Your task to perform on an android device: open app "Etsy: Buy & Sell Unique Items" (install if not already installed) Image 0: 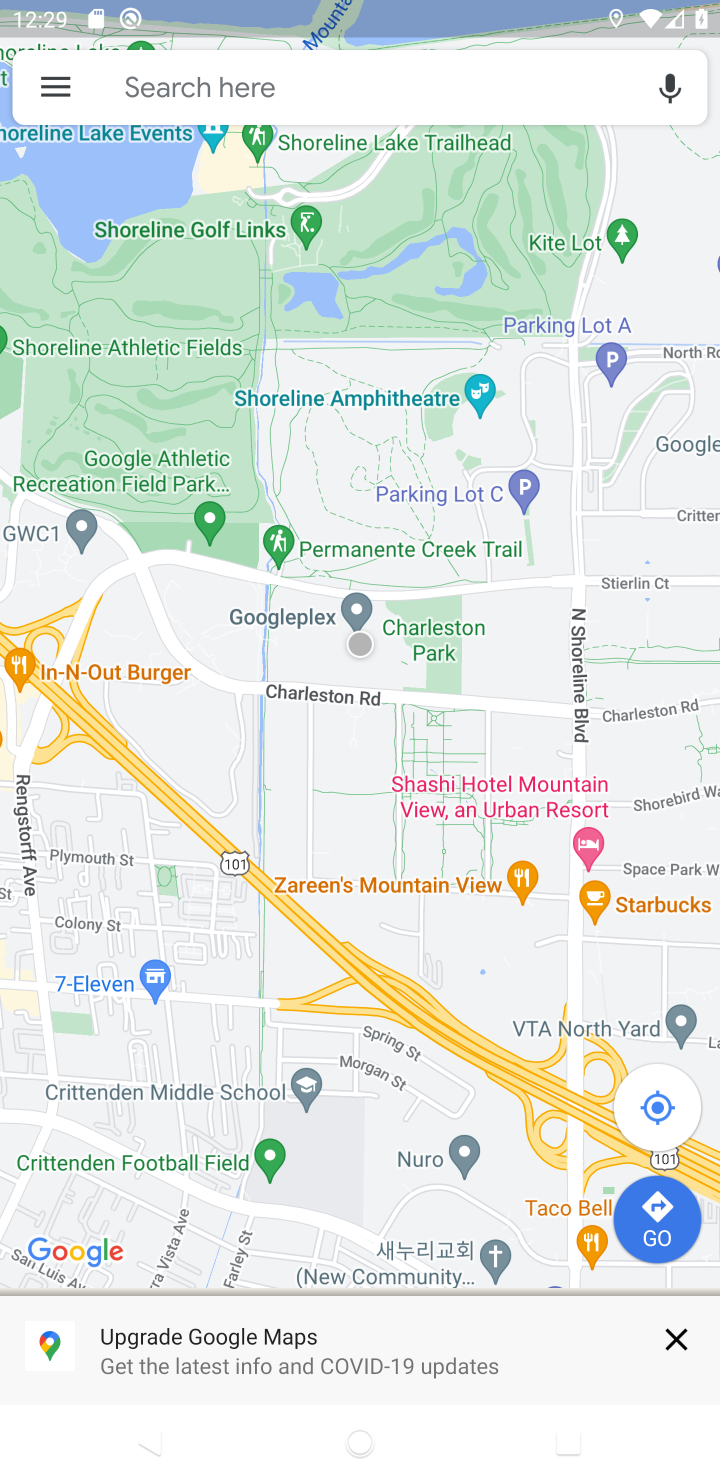
Step 0: press home button
Your task to perform on an android device: open app "Etsy: Buy & Sell Unique Items" (install if not already installed) Image 1: 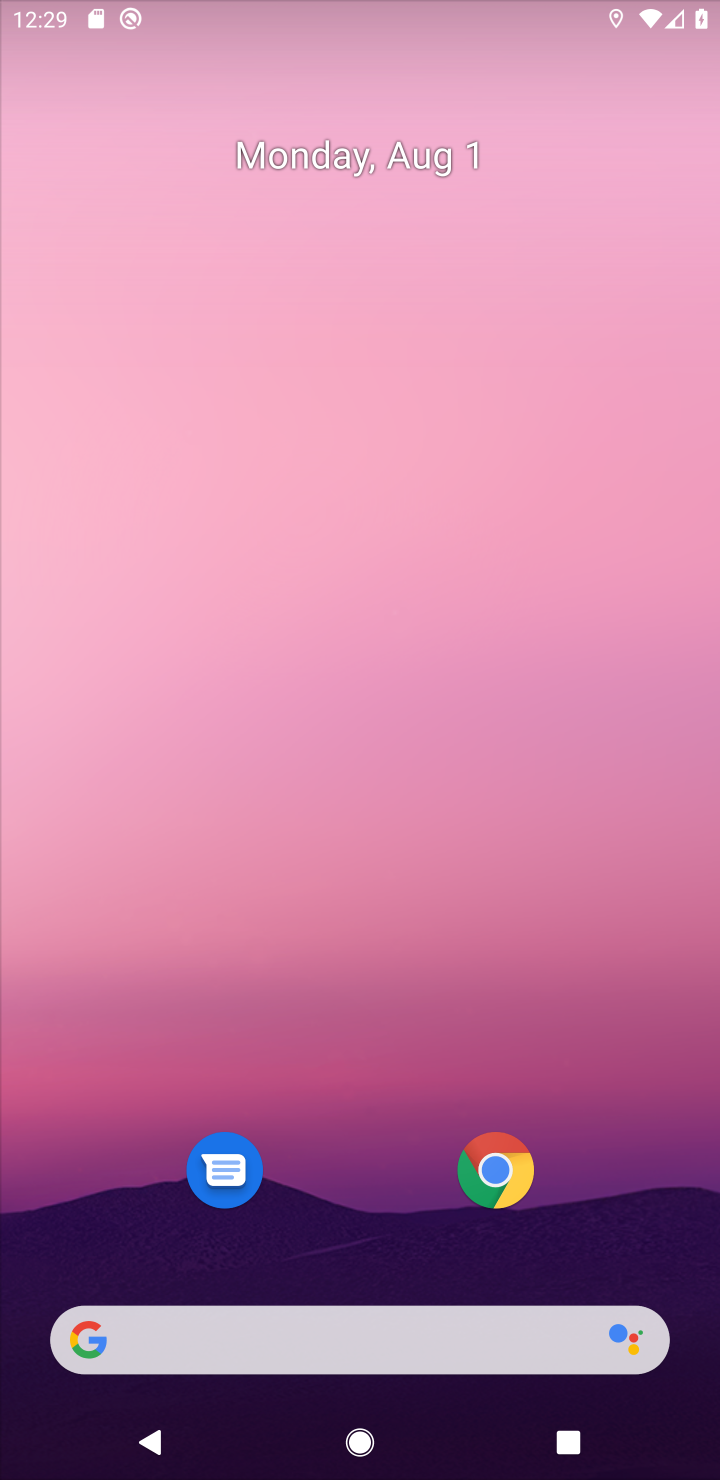
Step 1: press home button
Your task to perform on an android device: open app "Etsy: Buy & Sell Unique Items" (install if not already installed) Image 2: 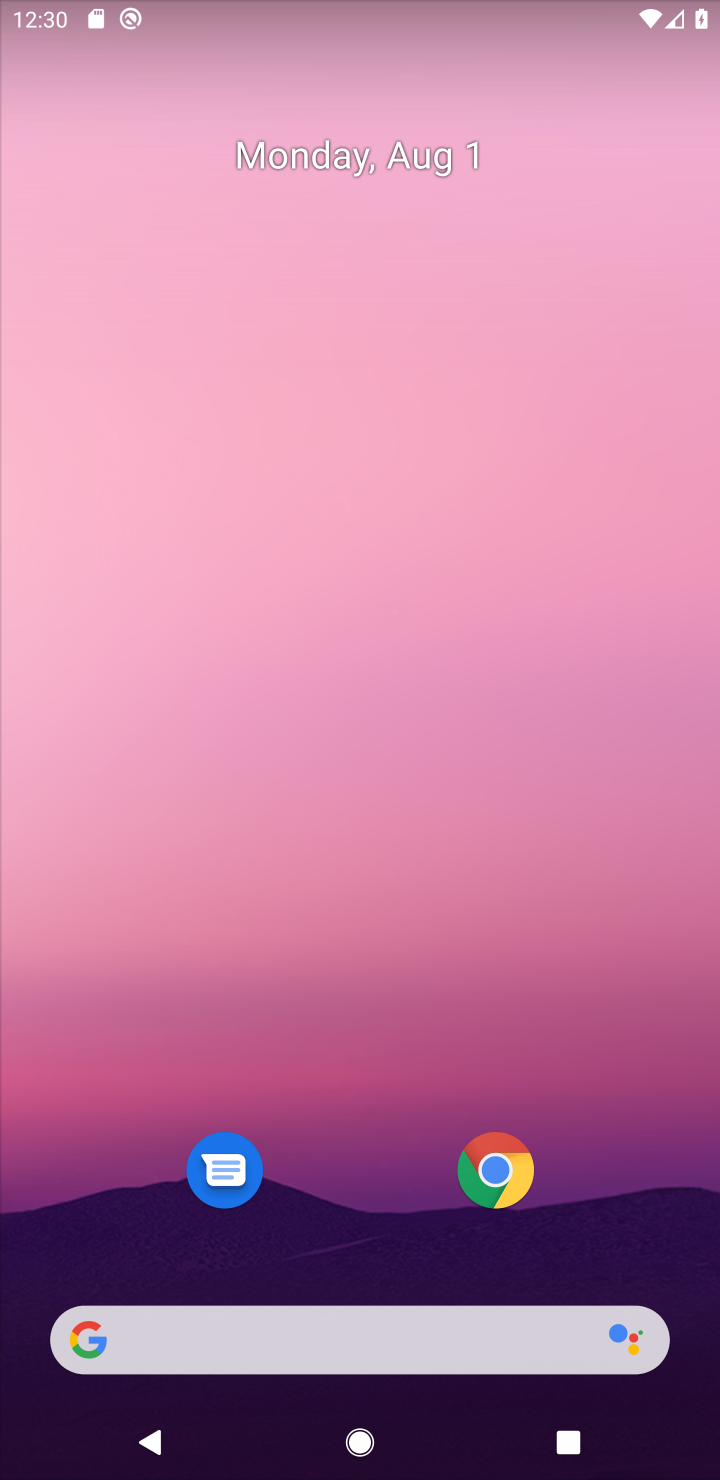
Step 2: drag from (657, 1251) to (419, 23)
Your task to perform on an android device: open app "Etsy: Buy & Sell Unique Items" (install if not already installed) Image 3: 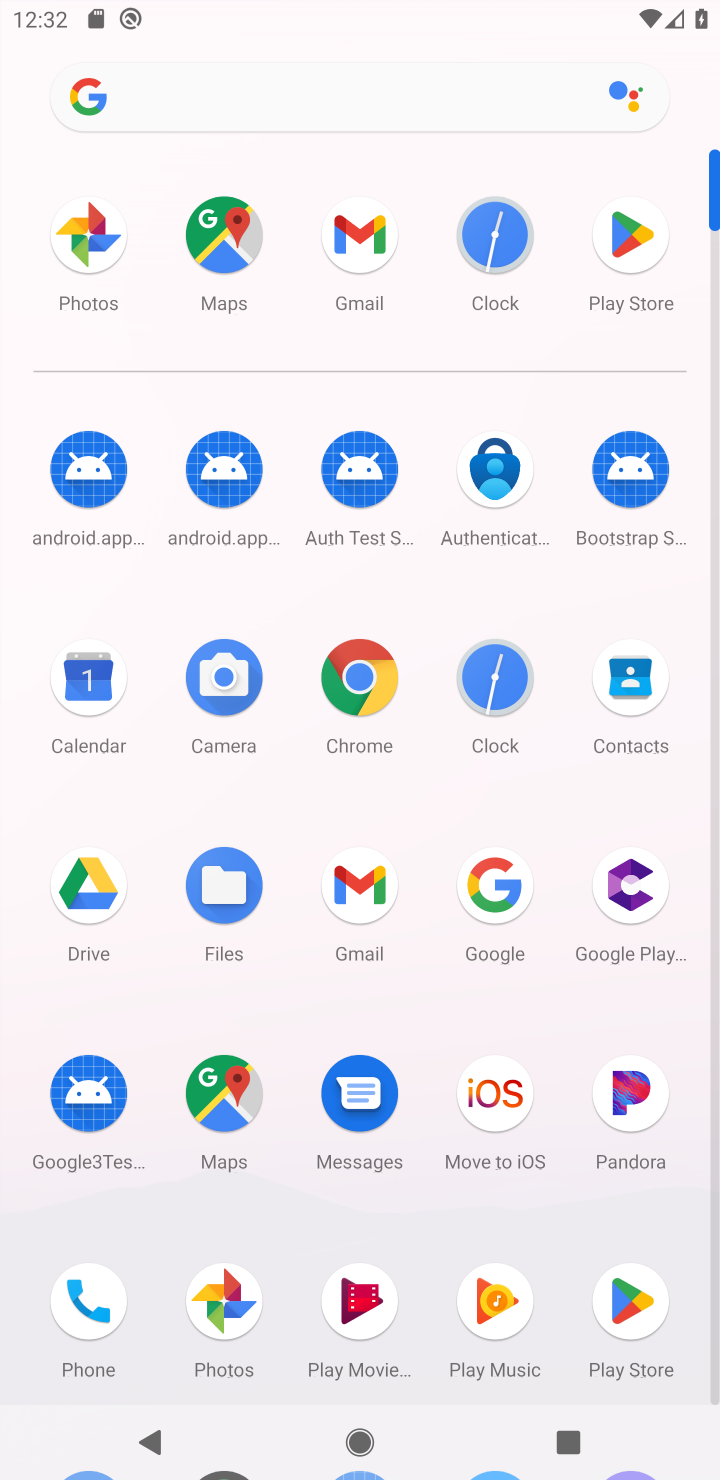
Step 3: click (619, 262)
Your task to perform on an android device: open app "Etsy: Buy & Sell Unique Items" (install if not already installed) Image 4: 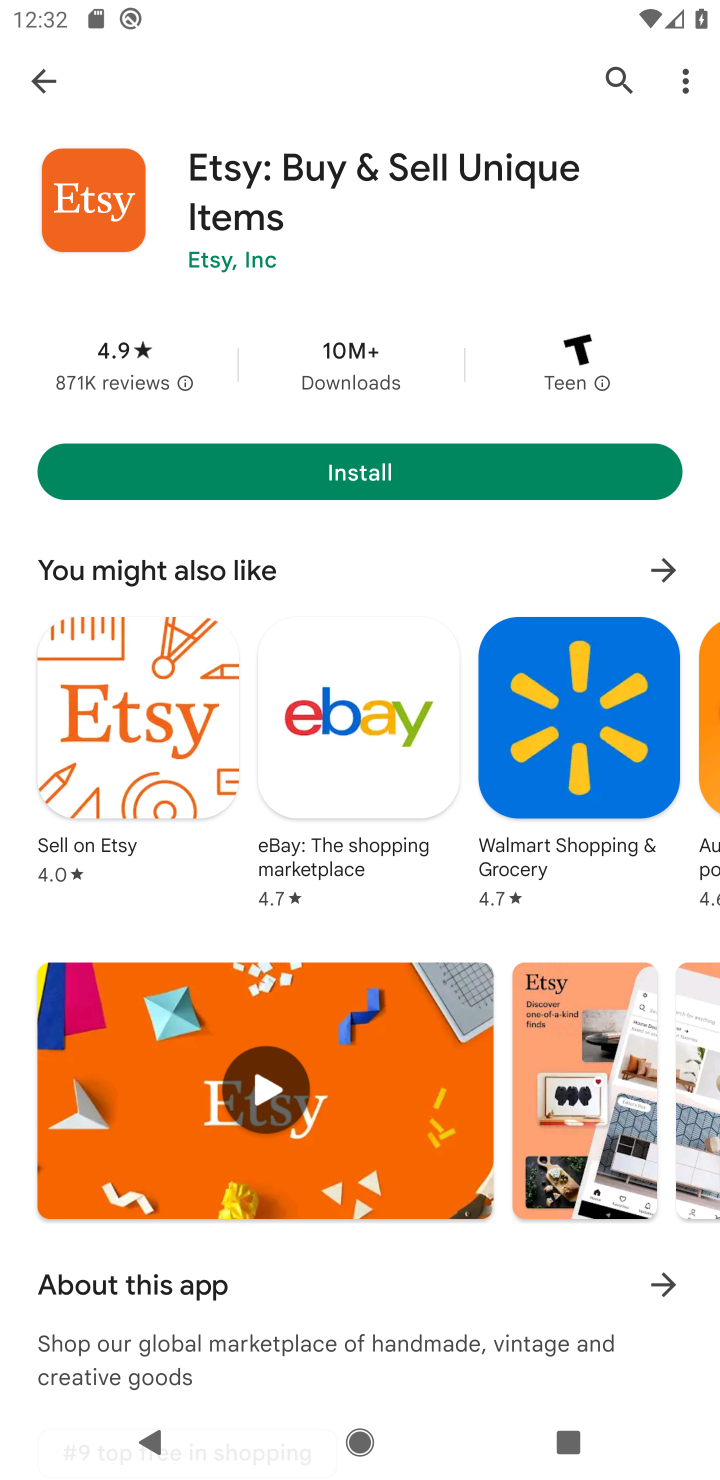
Step 4: task complete